Your task to perform on an android device: turn off location Image 0: 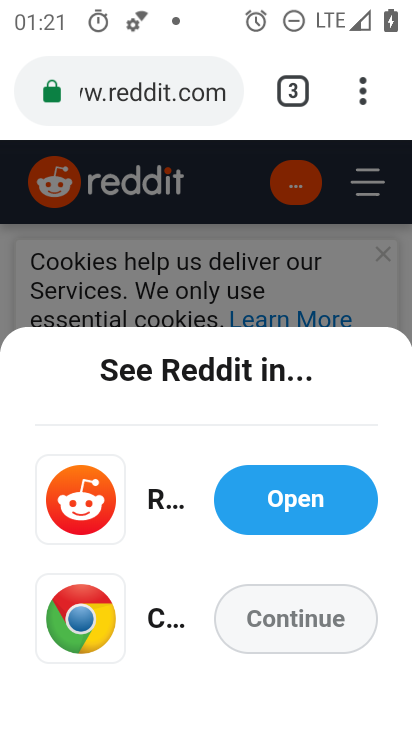
Step 0: press home button
Your task to perform on an android device: turn off location Image 1: 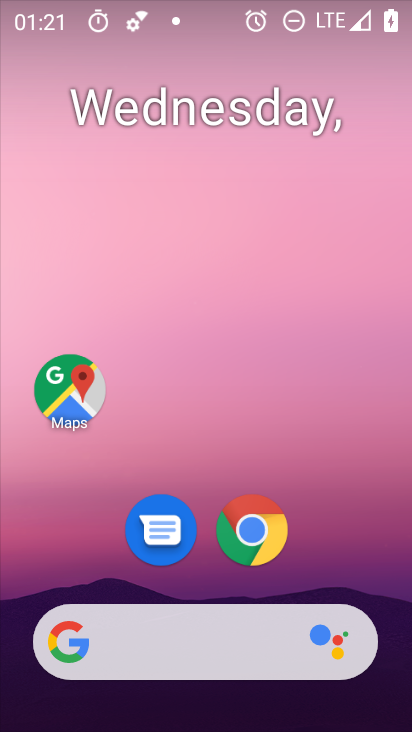
Step 1: drag from (263, 544) to (343, 0)
Your task to perform on an android device: turn off location Image 2: 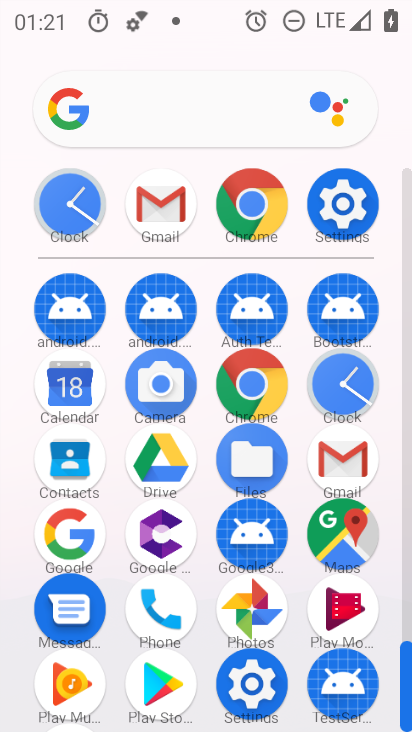
Step 2: click (341, 228)
Your task to perform on an android device: turn off location Image 3: 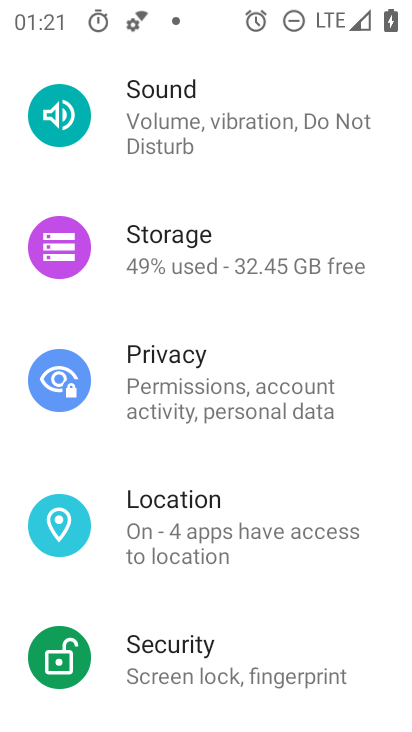
Step 3: drag from (227, 228) to (187, 122)
Your task to perform on an android device: turn off location Image 4: 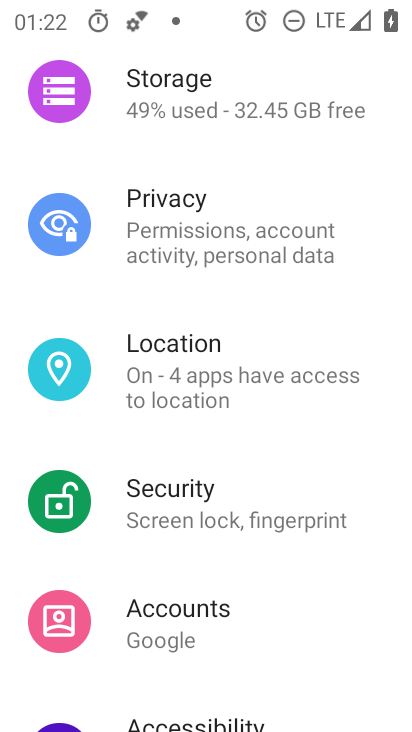
Step 4: click (208, 390)
Your task to perform on an android device: turn off location Image 5: 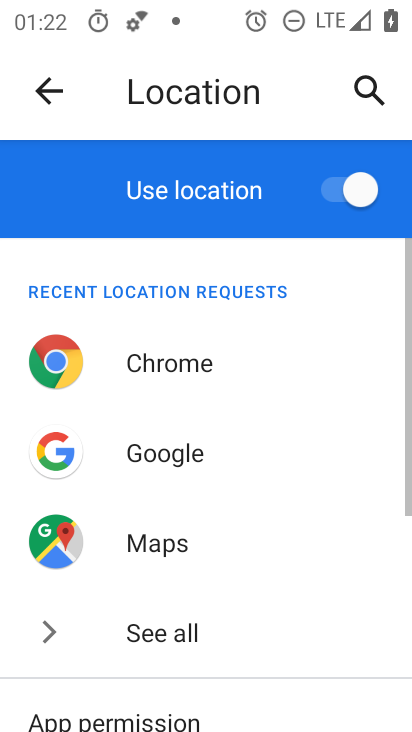
Step 5: click (330, 178)
Your task to perform on an android device: turn off location Image 6: 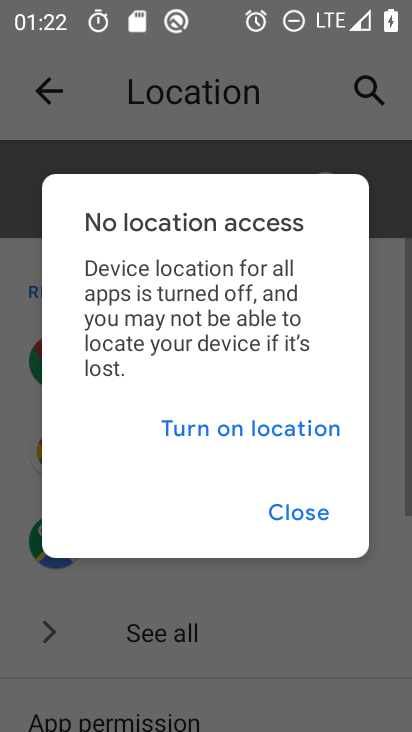
Step 6: task complete